Your task to perform on an android device: Do I have any events today? Image 0: 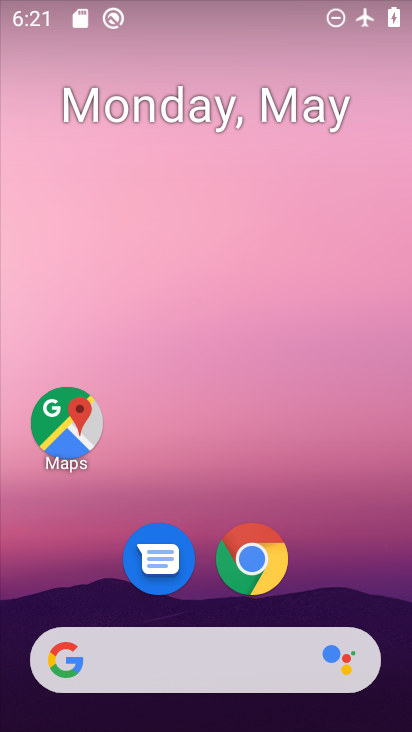
Step 0: drag from (335, 513) to (253, 12)
Your task to perform on an android device: Do I have any events today? Image 1: 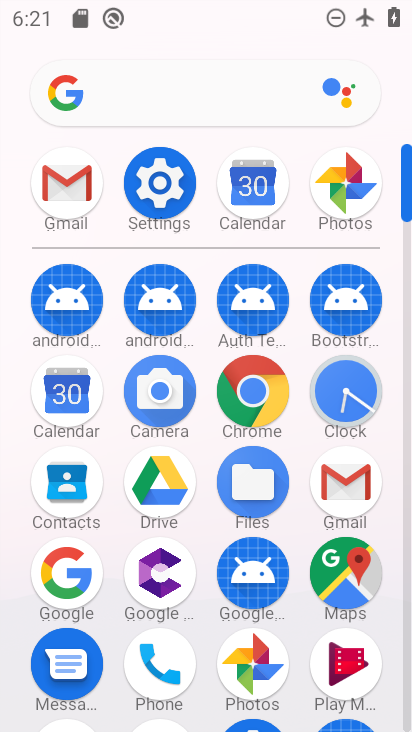
Step 1: click (68, 382)
Your task to perform on an android device: Do I have any events today? Image 2: 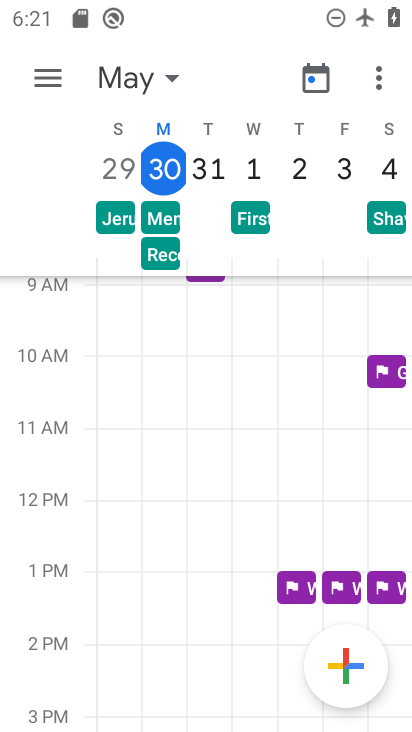
Step 2: click (158, 171)
Your task to perform on an android device: Do I have any events today? Image 3: 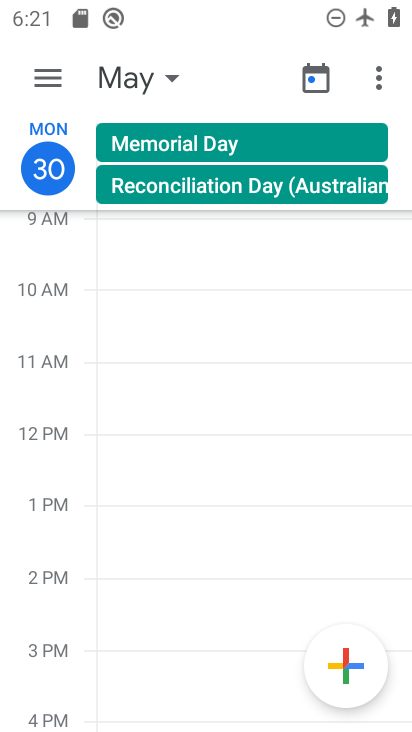
Step 3: task complete